Your task to perform on an android device: Check the news Image 0: 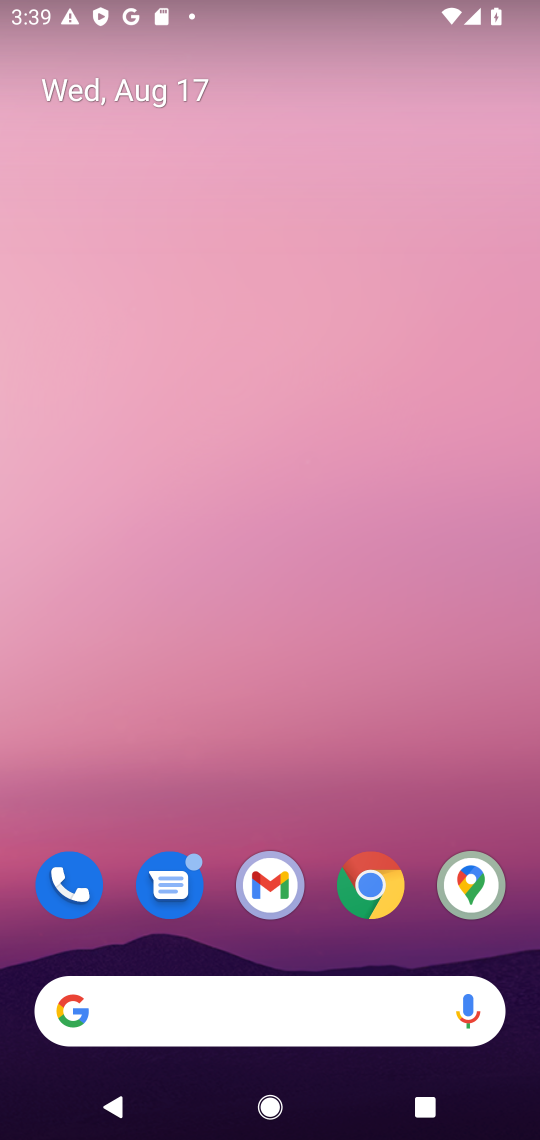
Step 0: drag from (247, 1000) to (364, 142)
Your task to perform on an android device: Check the news Image 1: 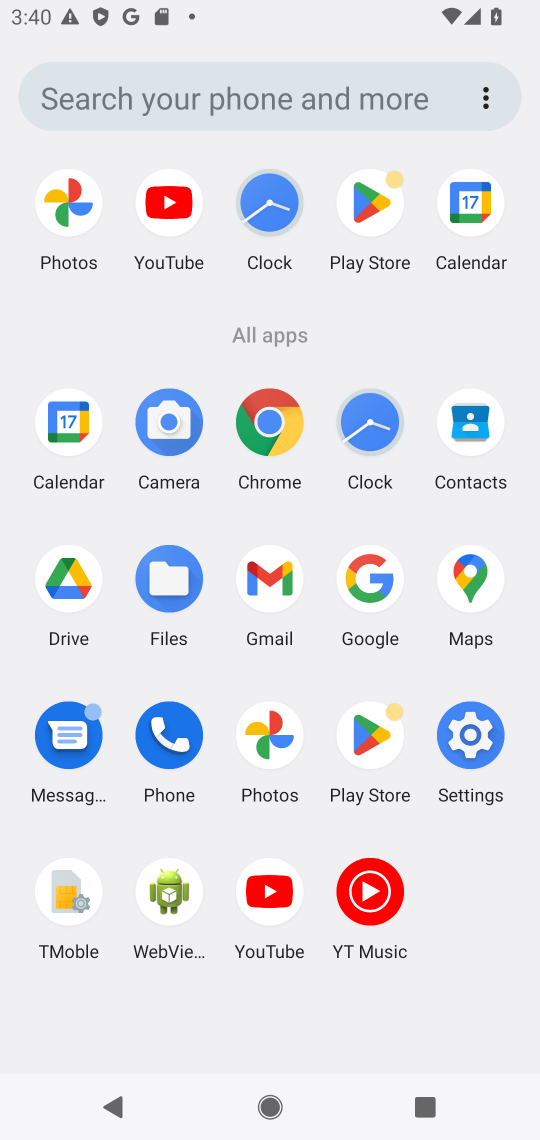
Step 1: click (368, 579)
Your task to perform on an android device: Check the news Image 2: 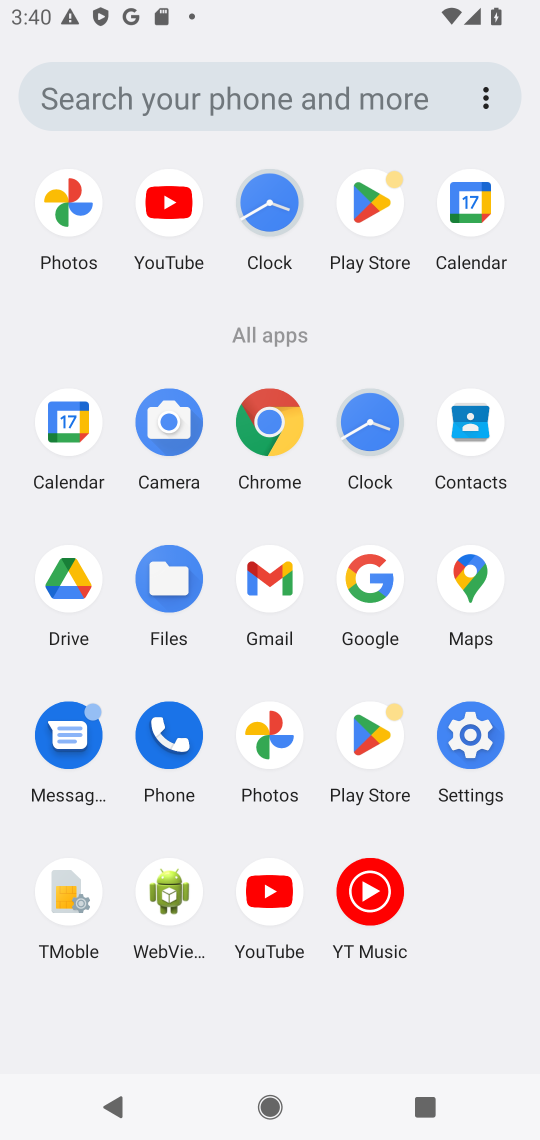
Step 2: click (367, 585)
Your task to perform on an android device: Check the news Image 3: 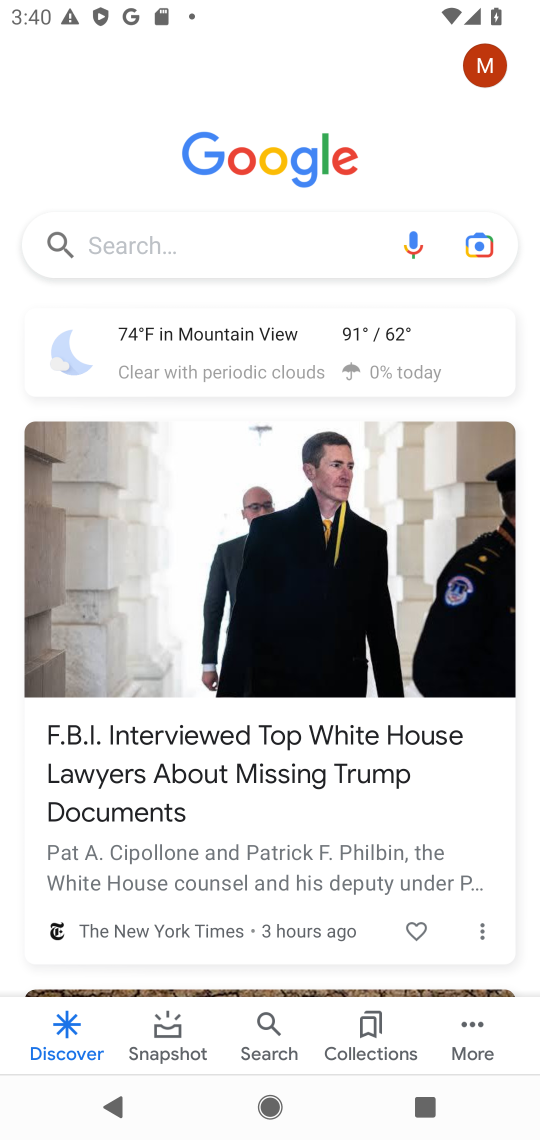
Step 3: click (271, 231)
Your task to perform on an android device: Check the news Image 4: 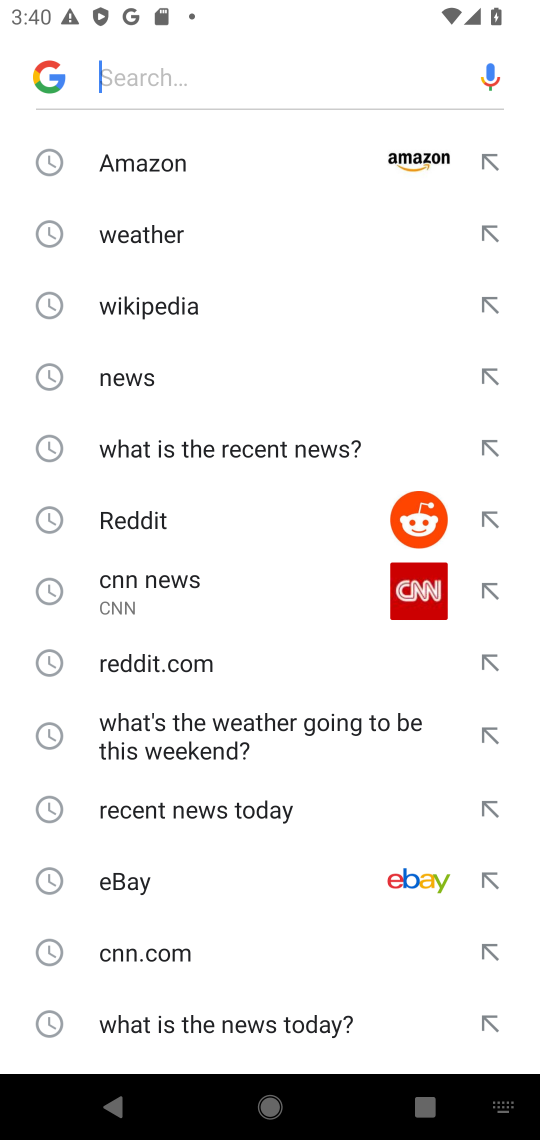
Step 4: type "news"
Your task to perform on an android device: Check the news Image 5: 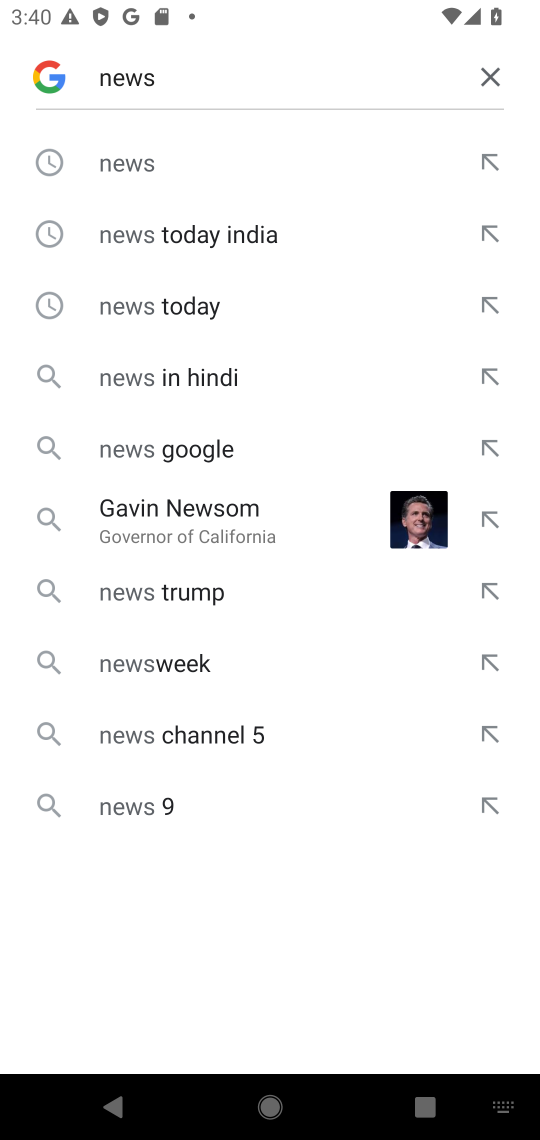
Step 5: click (139, 152)
Your task to perform on an android device: Check the news Image 6: 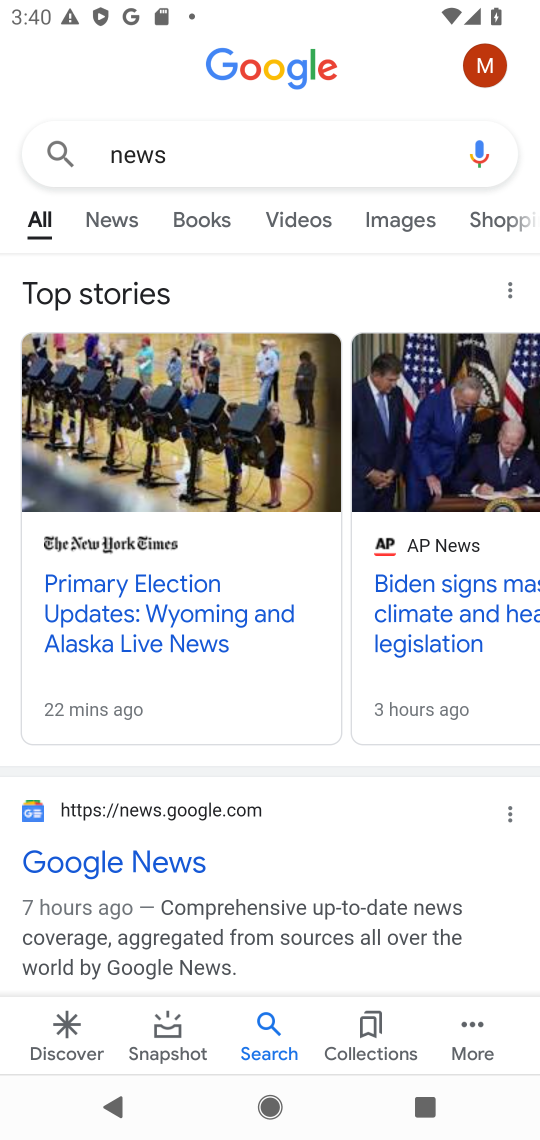
Step 6: click (186, 609)
Your task to perform on an android device: Check the news Image 7: 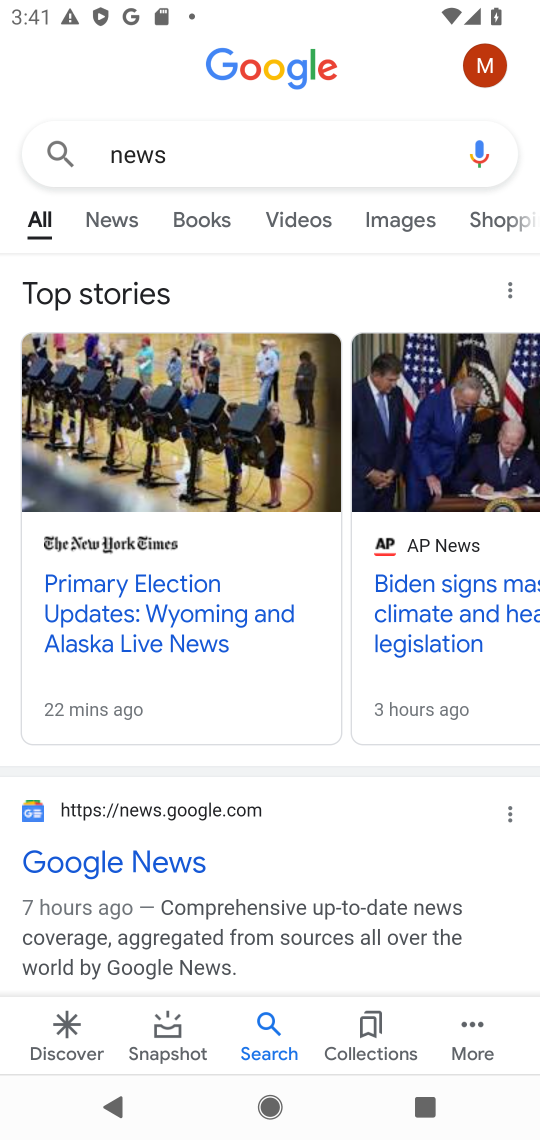
Step 7: click (157, 650)
Your task to perform on an android device: Check the news Image 8: 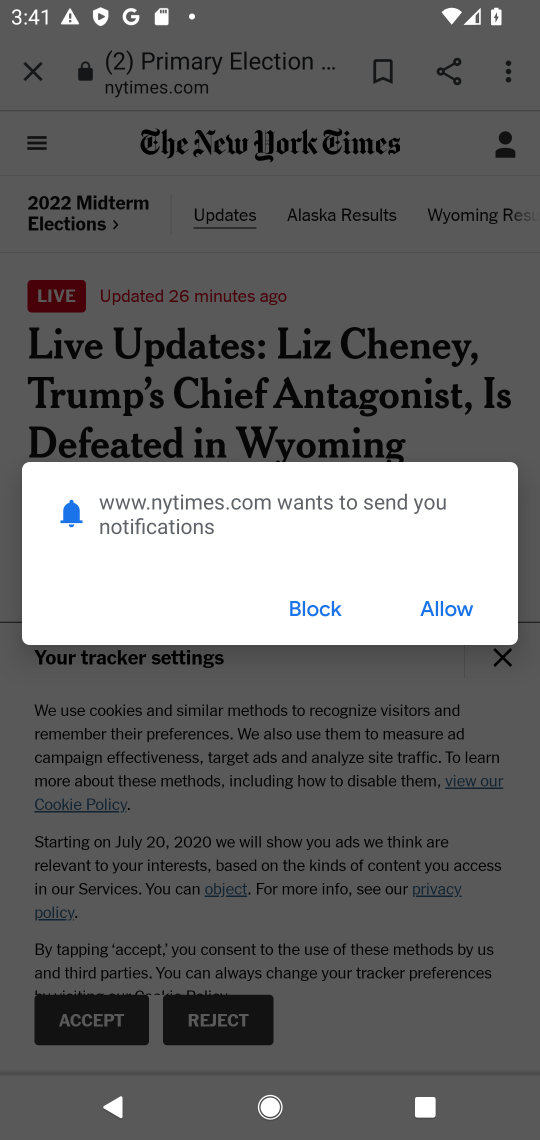
Step 8: task complete